Your task to perform on an android device: turn on priority inbox in the gmail app Image 0: 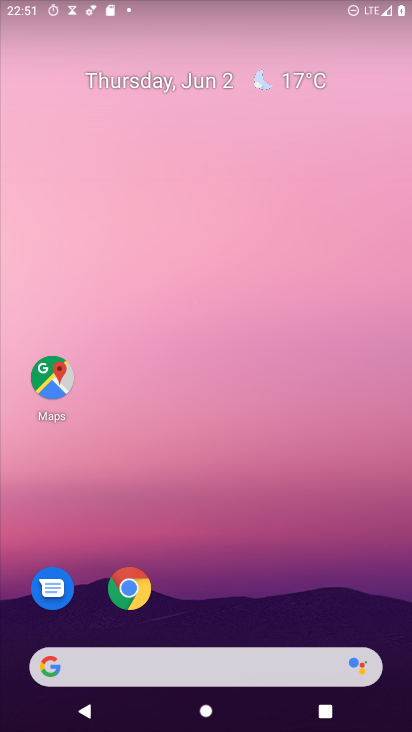
Step 0: drag from (223, 598) to (244, 62)
Your task to perform on an android device: turn on priority inbox in the gmail app Image 1: 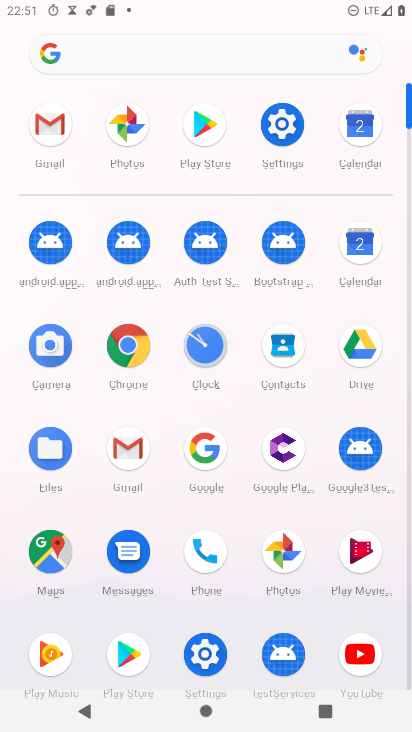
Step 1: click (119, 427)
Your task to perform on an android device: turn on priority inbox in the gmail app Image 2: 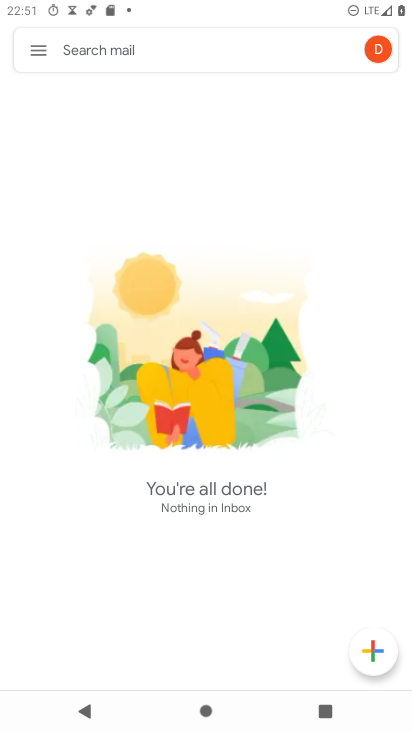
Step 2: click (38, 49)
Your task to perform on an android device: turn on priority inbox in the gmail app Image 3: 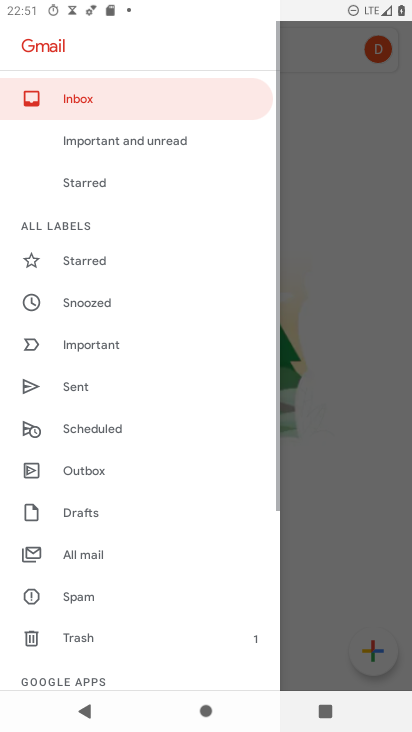
Step 3: drag from (83, 640) to (164, 141)
Your task to perform on an android device: turn on priority inbox in the gmail app Image 4: 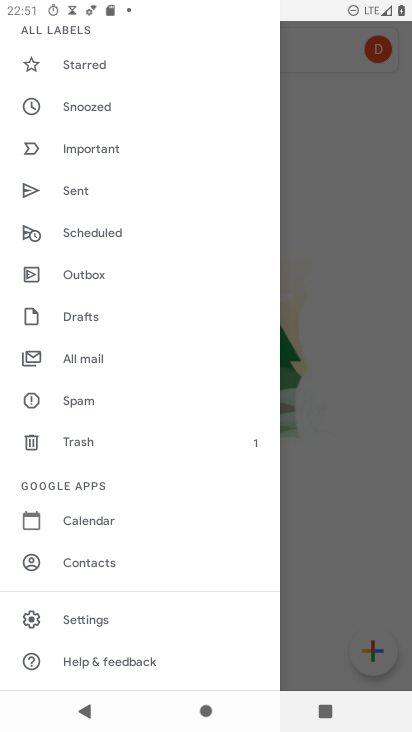
Step 4: click (90, 617)
Your task to perform on an android device: turn on priority inbox in the gmail app Image 5: 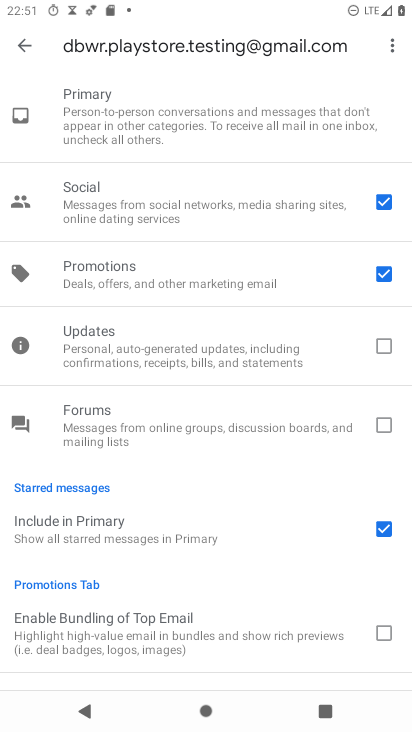
Step 5: click (20, 54)
Your task to perform on an android device: turn on priority inbox in the gmail app Image 6: 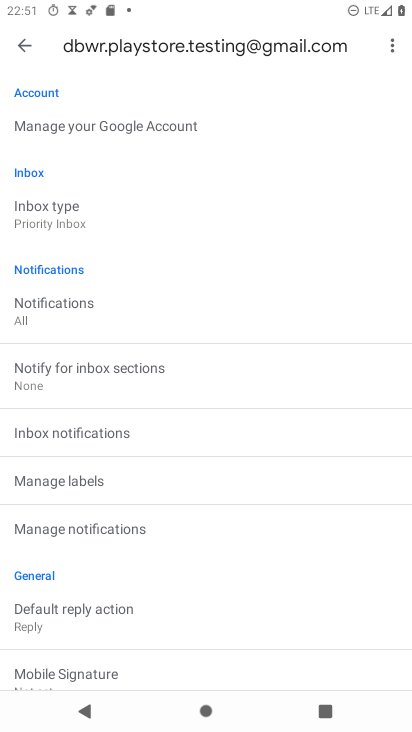
Step 6: drag from (118, 620) to (248, 105)
Your task to perform on an android device: turn on priority inbox in the gmail app Image 7: 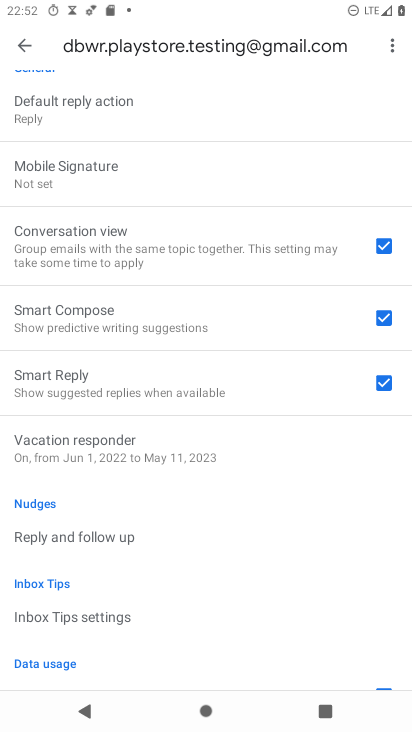
Step 7: drag from (143, 609) to (232, 55)
Your task to perform on an android device: turn on priority inbox in the gmail app Image 8: 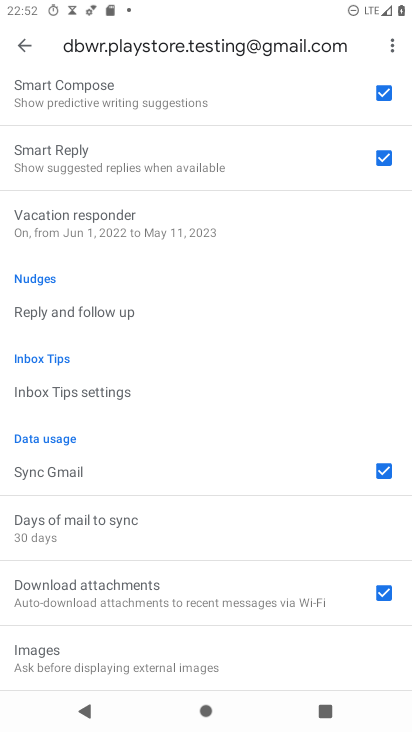
Step 8: drag from (210, 139) to (159, 524)
Your task to perform on an android device: turn on priority inbox in the gmail app Image 9: 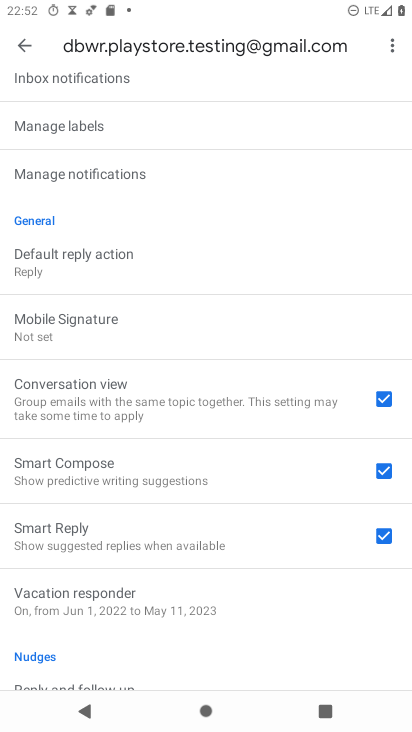
Step 9: drag from (195, 235) to (189, 610)
Your task to perform on an android device: turn on priority inbox in the gmail app Image 10: 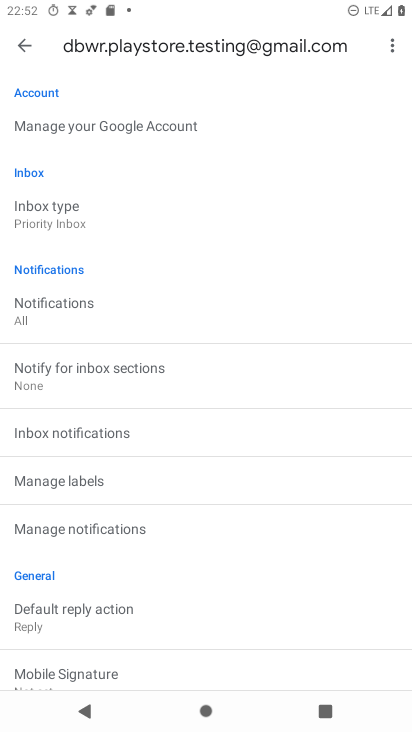
Step 10: click (69, 218)
Your task to perform on an android device: turn on priority inbox in the gmail app Image 11: 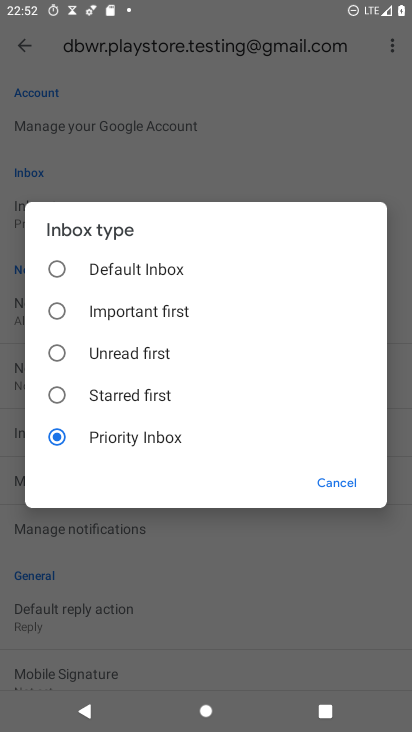
Step 11: task complete